Your task to perform on an android device: Open calendar and show me the third week of next month Image 0: 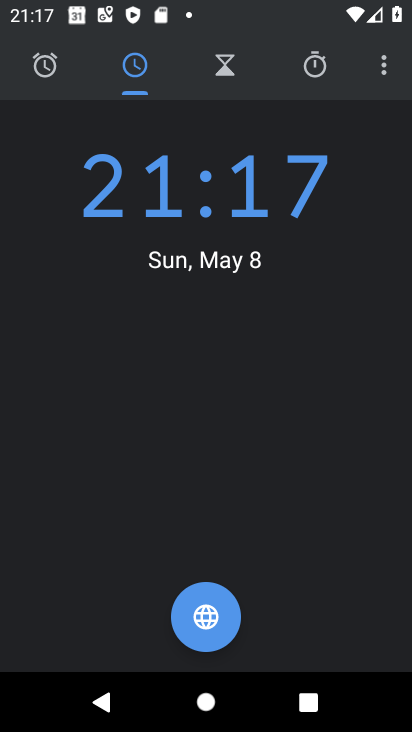
Step 0: press home button
Your task to perform on an android device: Open calendar and show me the third week of next month Image 1: 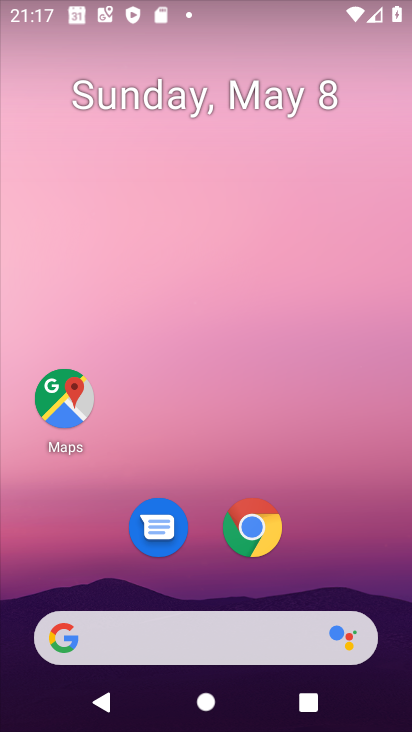
Step 1: drag from (198, 583) to (223, 76)
Your task to perform on an android device: Open calendar and show me the third week of next month Image 2: 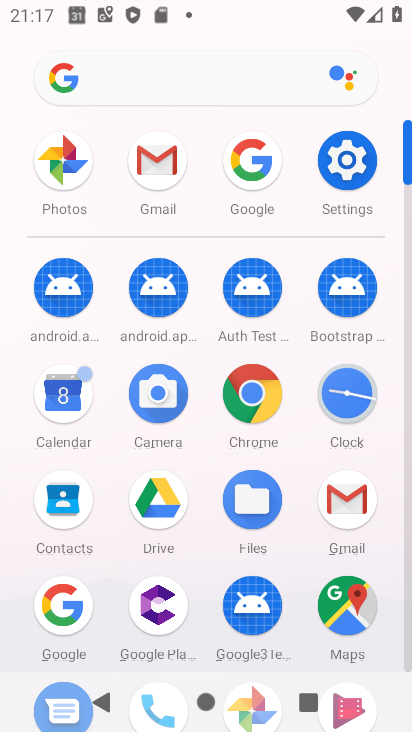
Step 2: click (65, 393)
Your task to perform on an android device: Open calendar and show me the third week of next month Image 3: 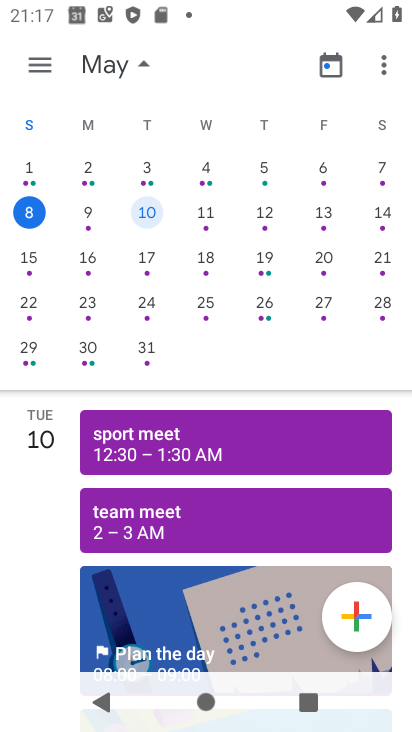
Step 3: drag from (65, 393) to (315, 350)
Your task to perform on an android device: Open calendar and show me the third week of next month Image 4: 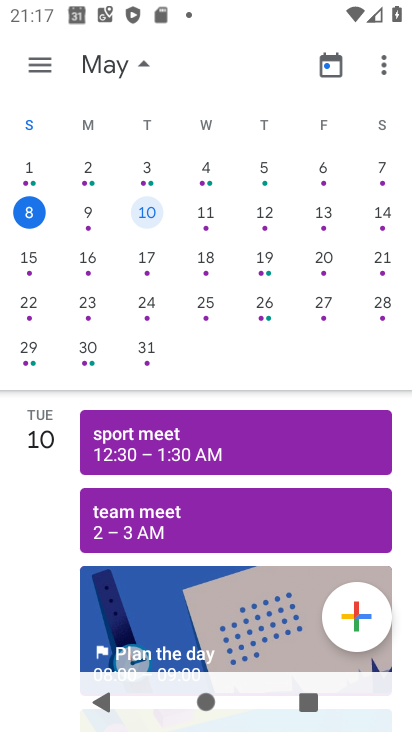
Step 4: click (368, 358)
Your task to perform on an android device: Open calendar and show me the third week of next month Image 5: 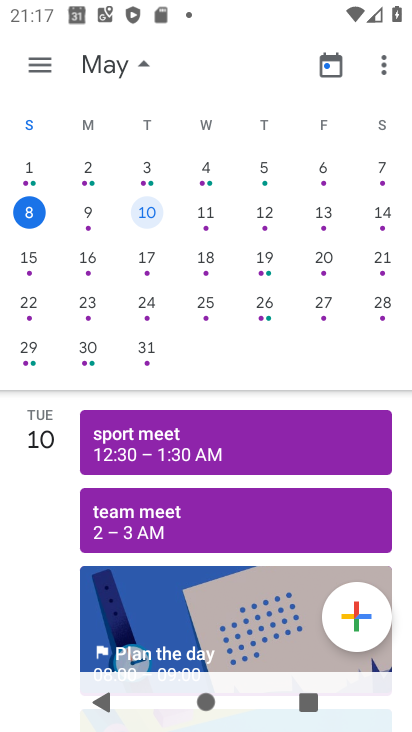
Step 5: drag from (368, 358) to (3, 339)
Your task to perform on an android device: Open calendar and show me the third week of next month Image 6: 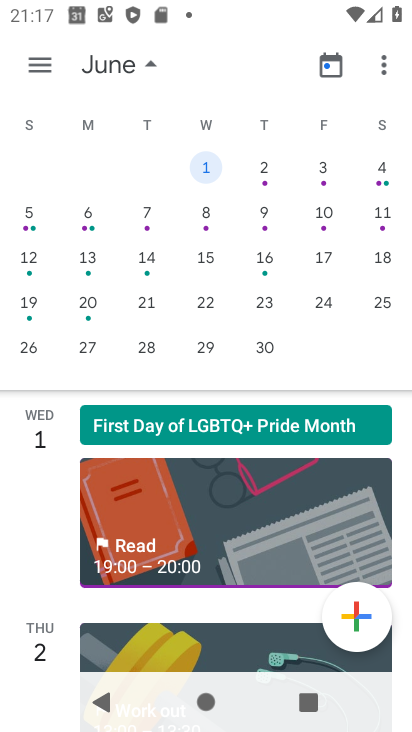
Step 6: click (208, 257)
Your task to perform on an android device: Open calendar and show me the third week of next month Image 7: 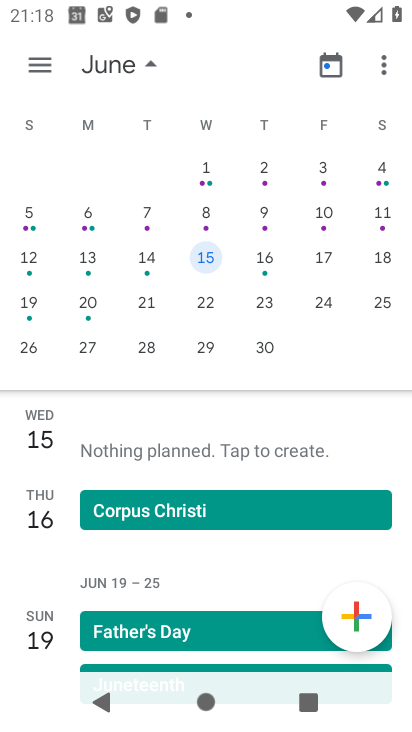
Step 7: task complete